Your task to perform on an android device: Show me the alarms in the clock app Image 0: 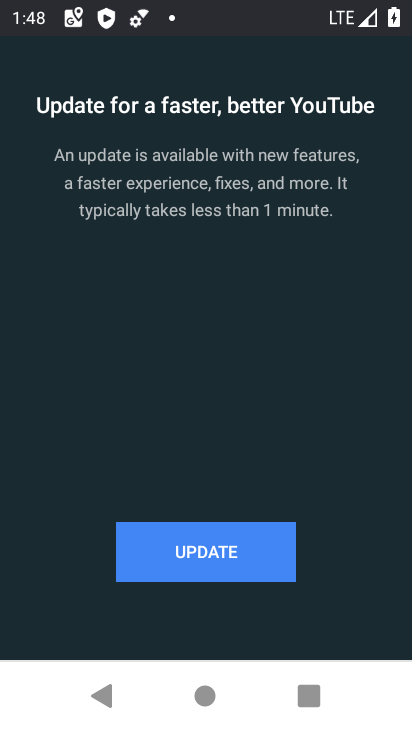
Step 0: press home button
Your task to perform on an android device: Show me the alarms in the clock app Image 1: 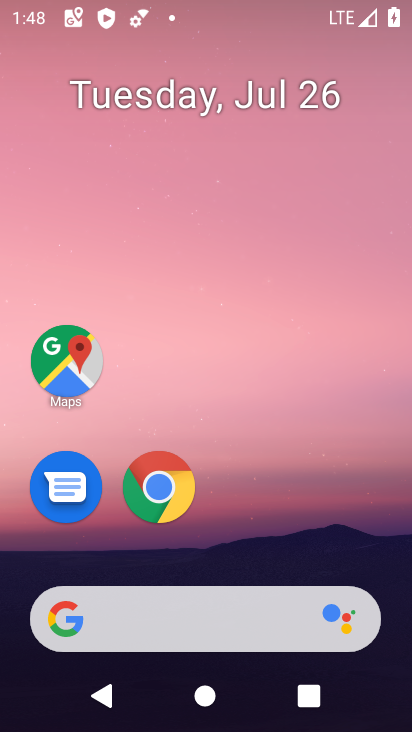
Step 1: drag from (260, 610) to (283, 197)
Your task to perform on an android device: Show me the alarms in the clock app Image 2: 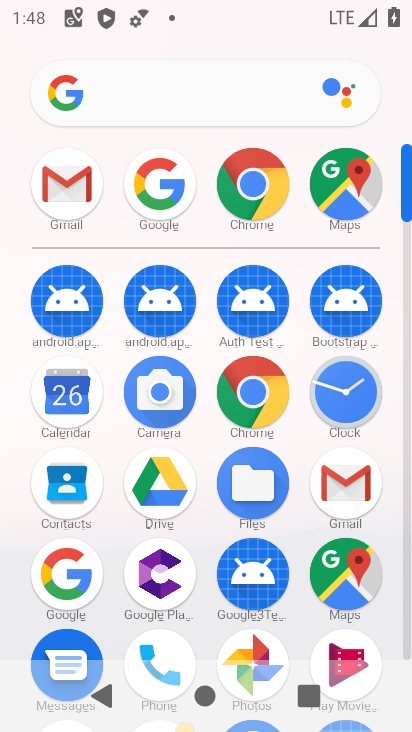
Step 2: click (352, 410)
Your task to perform on an android device: Show me the alarms in the clock app Image 3: 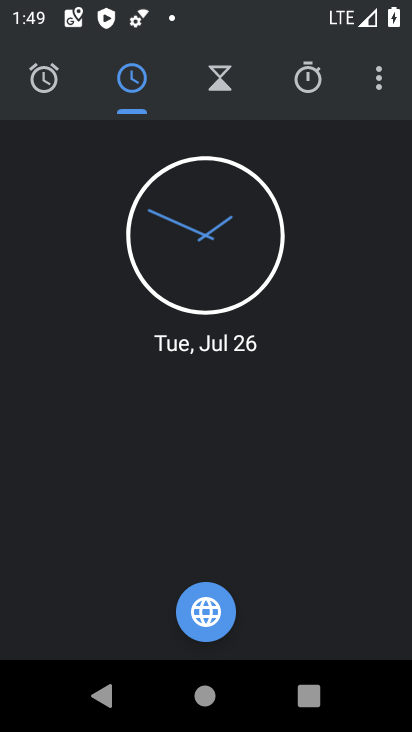
Step 3: click (40, 79)
Your task to perform on an android device: Show me the alarms in the clock app Image 4: 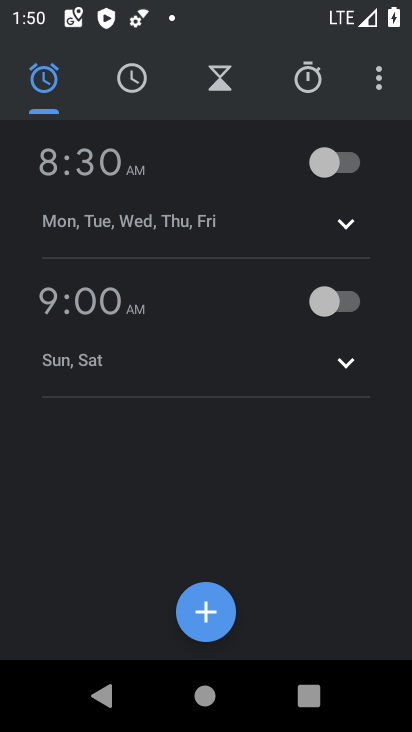
Step 4: task complete